Your task to perform on an android device: open app "Pandora - Music & Podcasts" (install if not already installed) and enter user name: "creator@yahoo.com" and password: "valuable" Image 0: 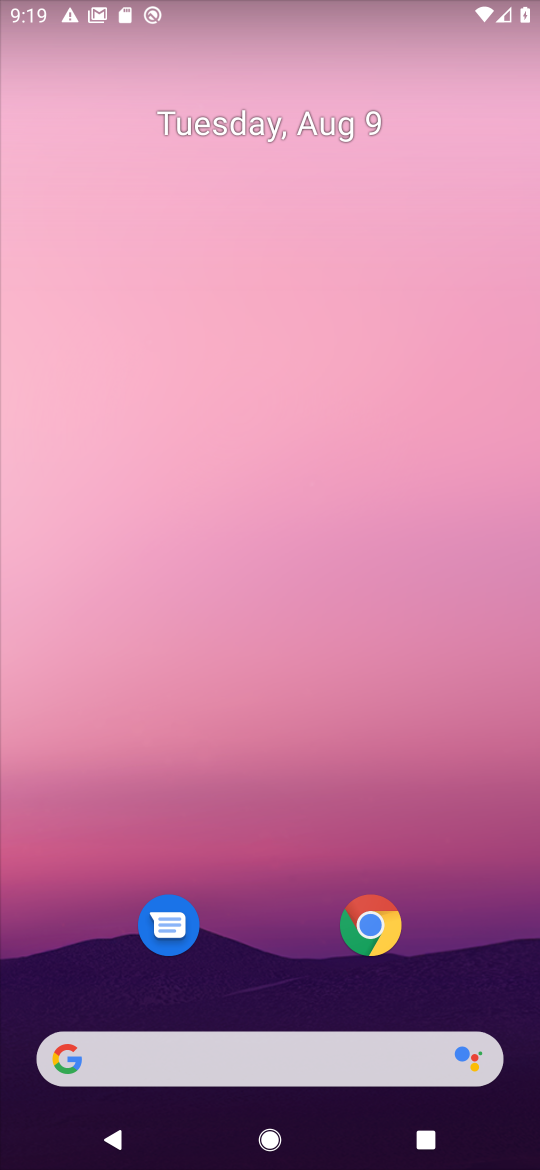
Step 0: click (264, 833)
Your task to perform on an android device: open app "Pandora - Music & Podcasts" (install if not already installed) and enter user name: "creator@yahoo.com" and password: "valuable" Image 1: 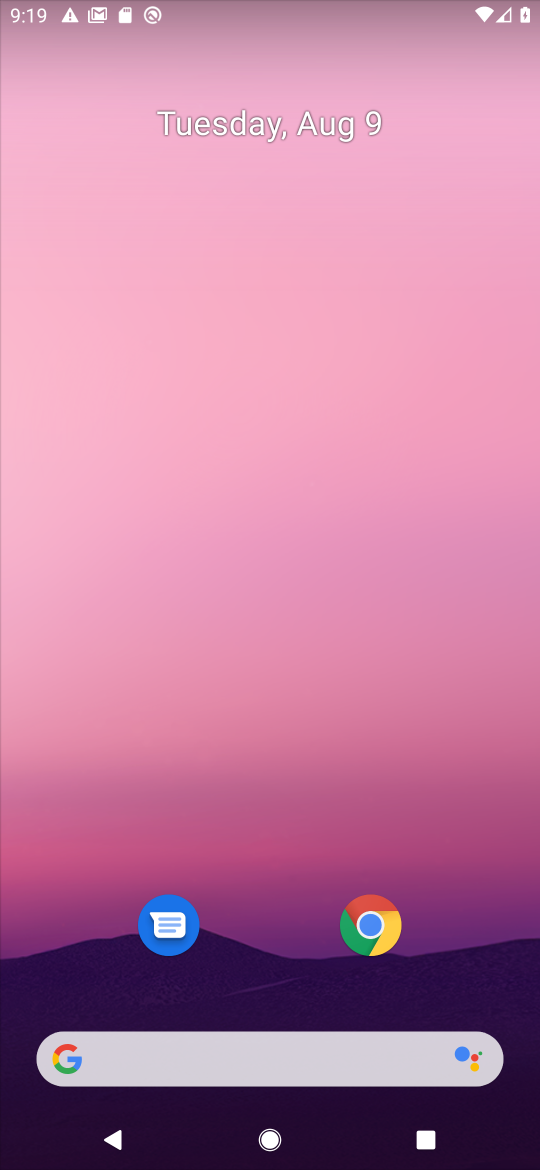
Step 1: drag from (263, 477) to (193, 22)
Your task to perform on an android device: open app "Pandora - Music & Podcasts" (install if not already installed) and enter user name: "creator@yahoo.com" and password: "valuable" Image 2: 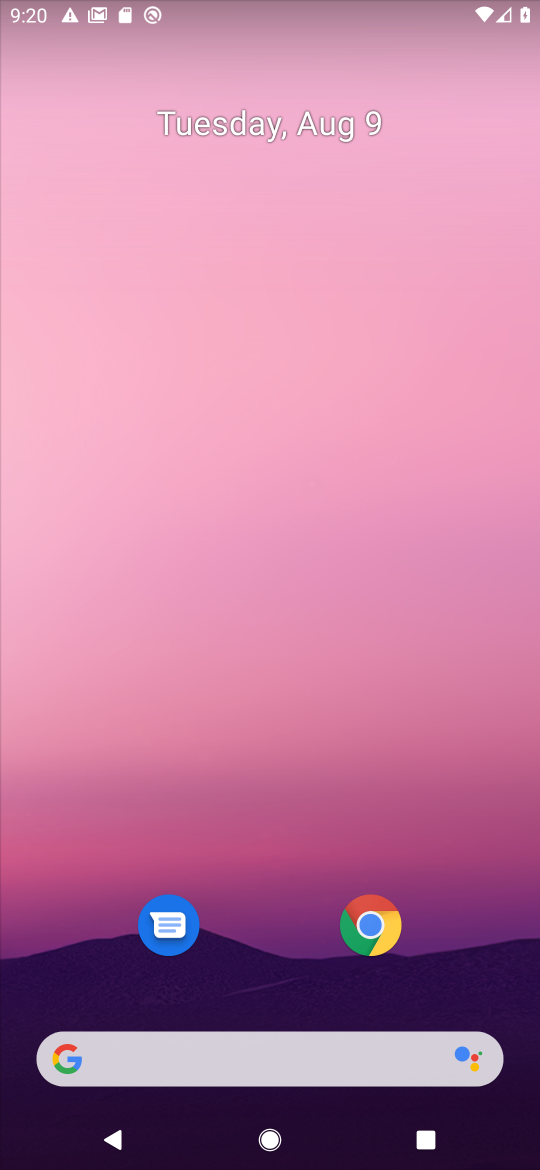
Step 2: drag from (254, 895) to (214, 19)
Your task to perform on an android device: open app "Pandora - Music & Podcasts" (install if not already installed) and enter user name: "creator@yahoo.com" and password: "valuable" Image 3: 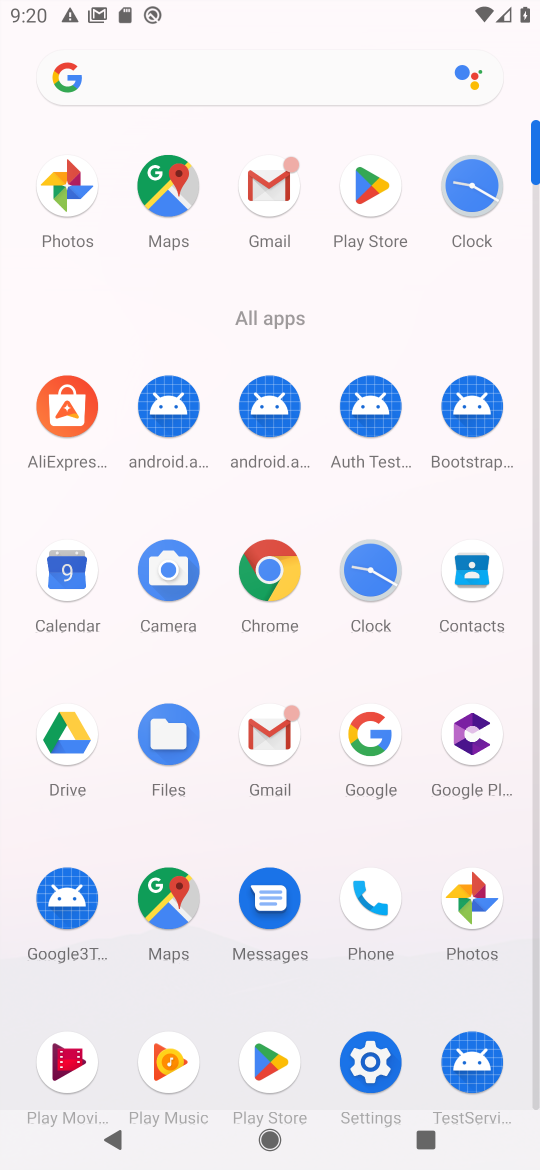
Step 3: click (369, 196)
Your task to perform on an android device: open app "Pandora - Music & Podcasts" (install if not already installed) and enter user name: "creator@yahoo.com" and password: "valuable" Image 4: 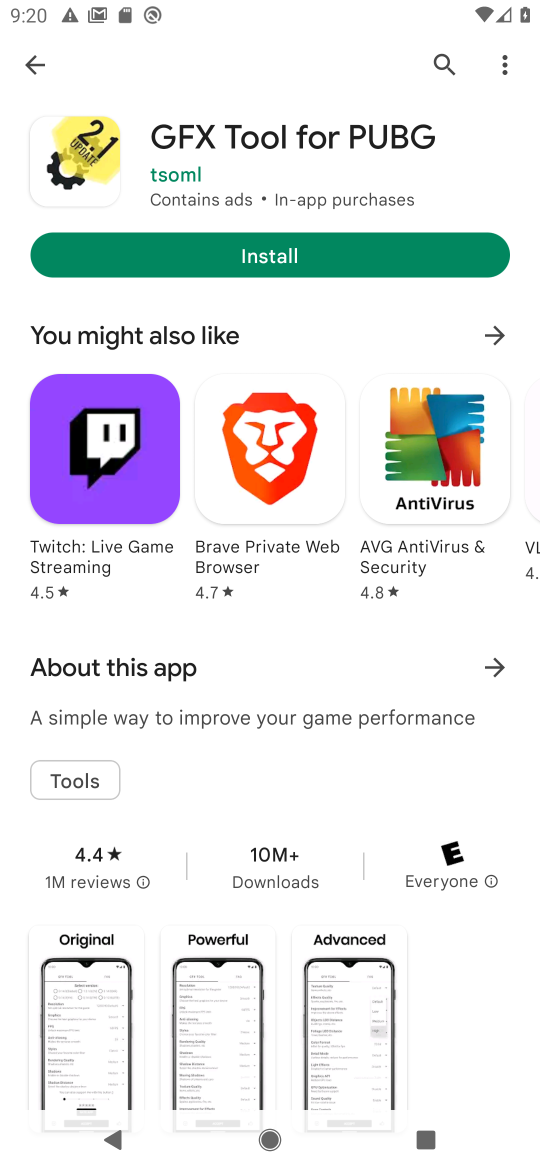
Step 4: click (26, 60)
Your task to perform on an android device: open app "Pandora - Music & Podcasts" (install if not already installed) and enter user name: "creator@yahoo.com" and password: "valuable" Image 5: 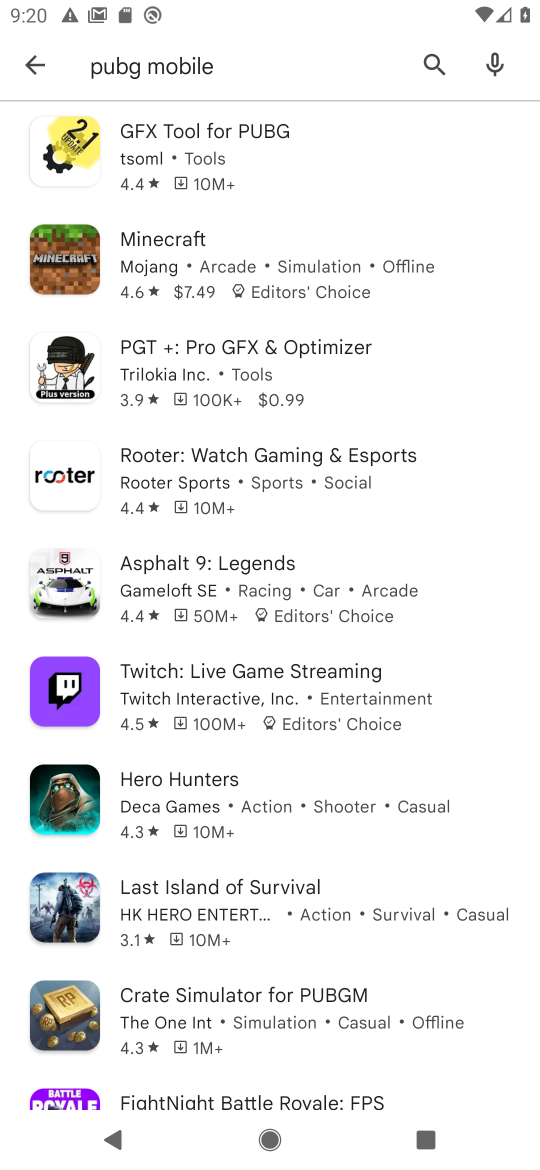
Step 5: click (42, 61)
Your task to perform on an android device: open app "Pandora - Music & Podcasts" (install if not already installed) and enter user name: "creator@yahoo.com" and password: "valuable" Image 6: 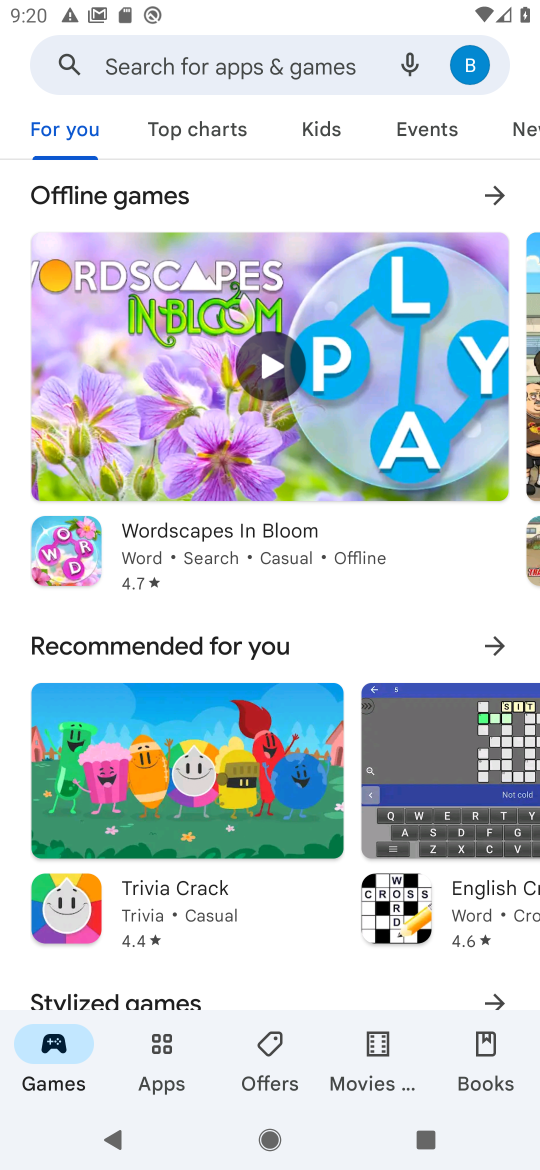
Step 6: click (212, 59)
Your task to perform on an android device: open app "Pandora - Music & Podcasts" (install if not already installed) and enter user name: "creator@yahoo.com" and password: "valuable" Image 7: 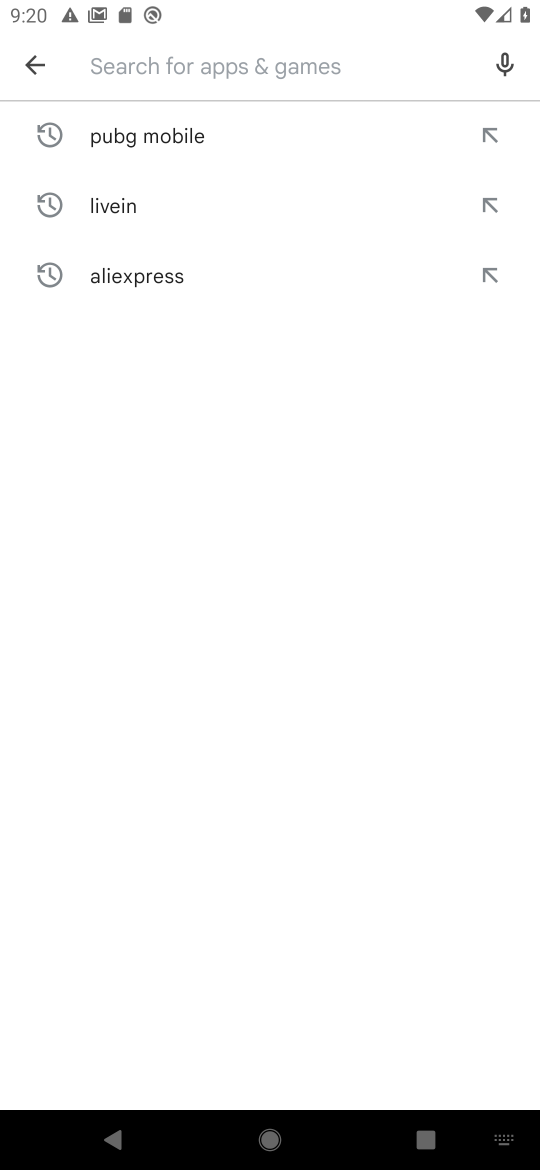
Step 7: type "Pandora"
Your task to perform on an android device: open app "Pandora - Music & Podcasts" (install if not already installed) and enter user name: "creator@yahoo.com" and password: "valuable" Image 8: 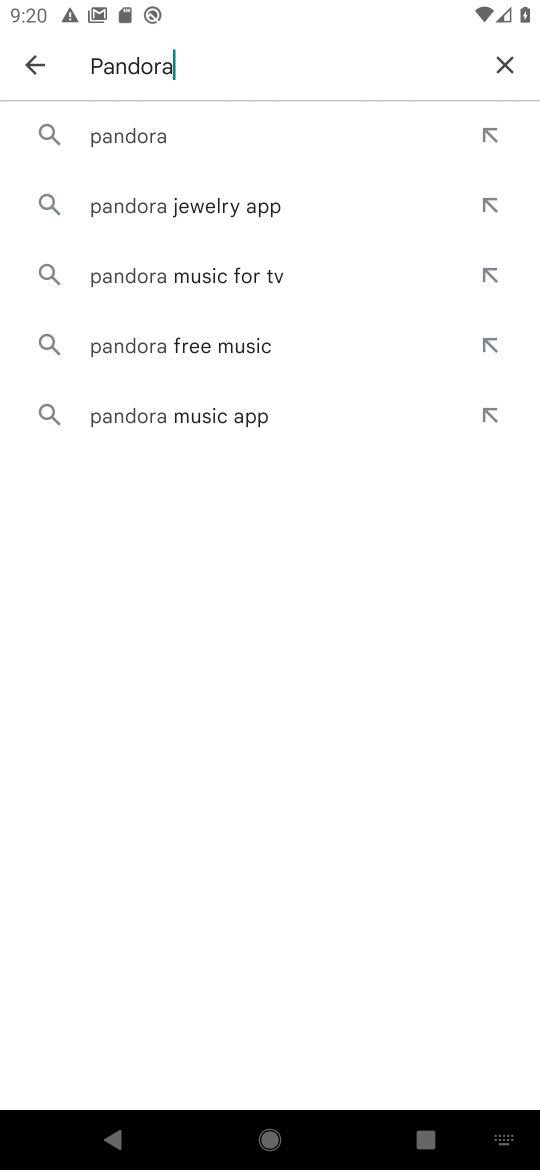
Step 8: click (144, 144)
Your task to perform on an android device: open app "Pandora - Music & Podcasts" (install if not already installed) and enter user name: "creator@yahoo.com" and password: "valuable" Image 9: 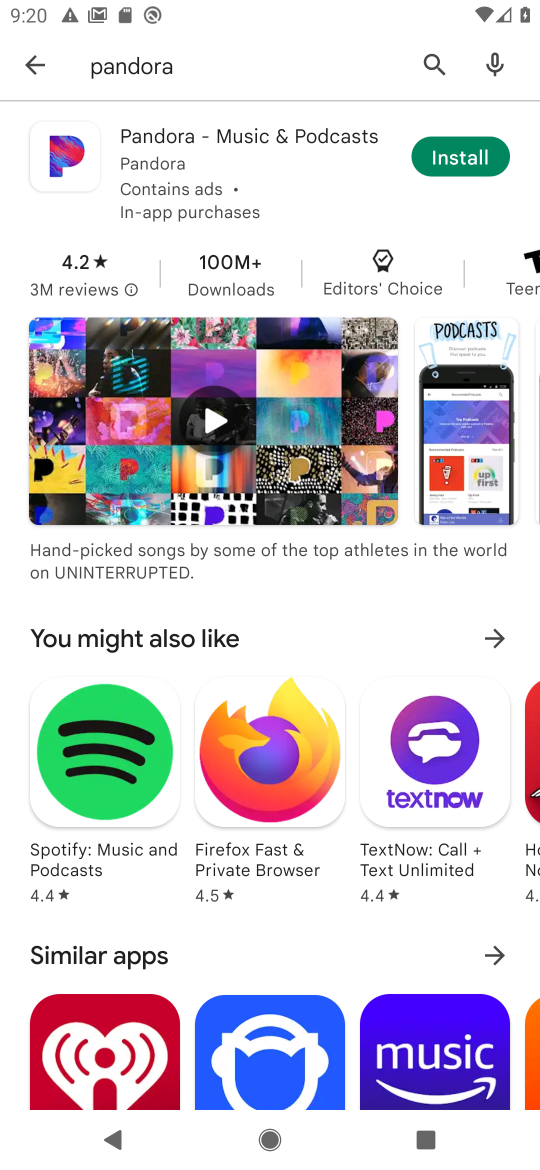
Step 9: click (452, 159)
Your task to perform on an android device: open app "Pandora - Music & Podcasts" (install if not already installed) and enter user name: "creator@yahoo.com" and password: "valuable" Image 10: 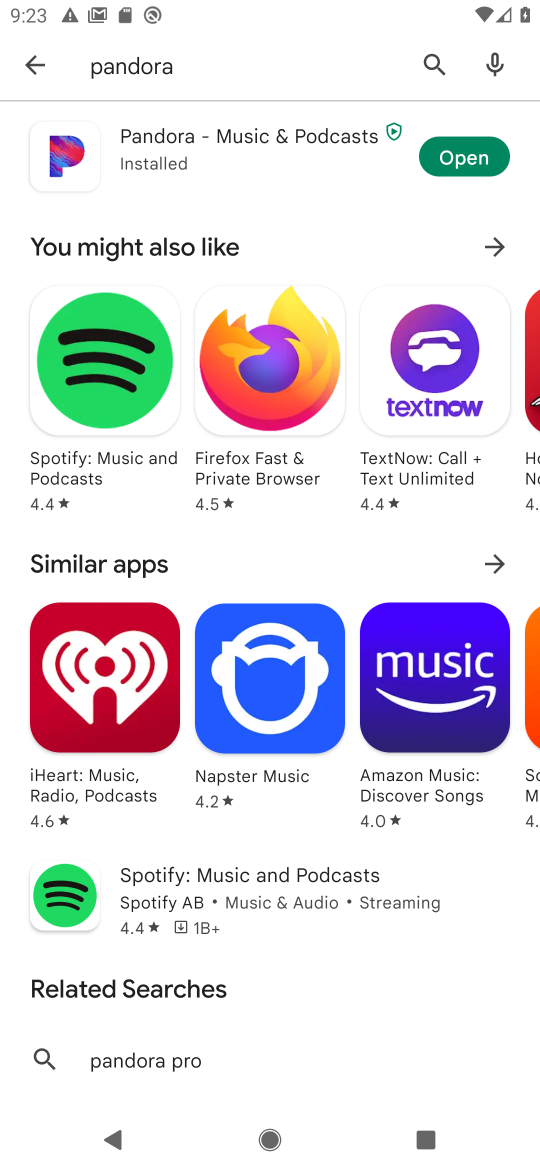
Step 10: click (475, 162)
Your task to perform on an android device: open app "Pandora - Music & Podcasts" (install if not already installed) and enter user name: "creator@yahoo.com" and password: "valuable" Image 11: 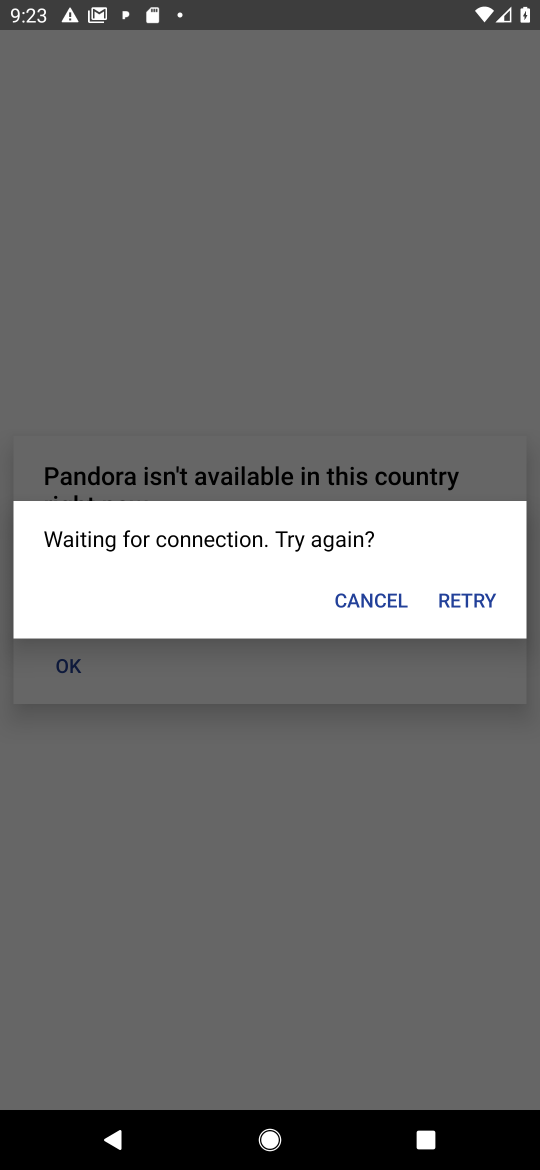
Step 11: click (458, 592)
Your task to perform on an android device: open app "Pandora - Music & Podcasts" (install if not already installed) and enter user name: "creator@yahoo.com" and password: "valuable" Image 12: 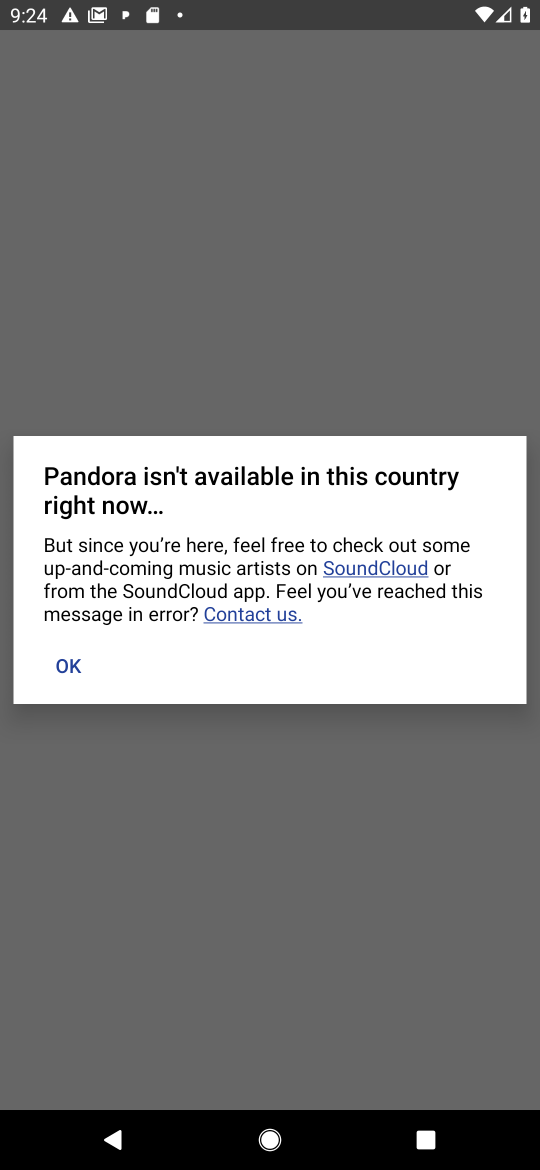
Step 12: click (73, 667)
Your task to perform on an android device: open app "Pandora - Music & Podcasts" (install if not already installed) and enter user name: "creator@yahoo.com" and password: "valuable" Image 13: 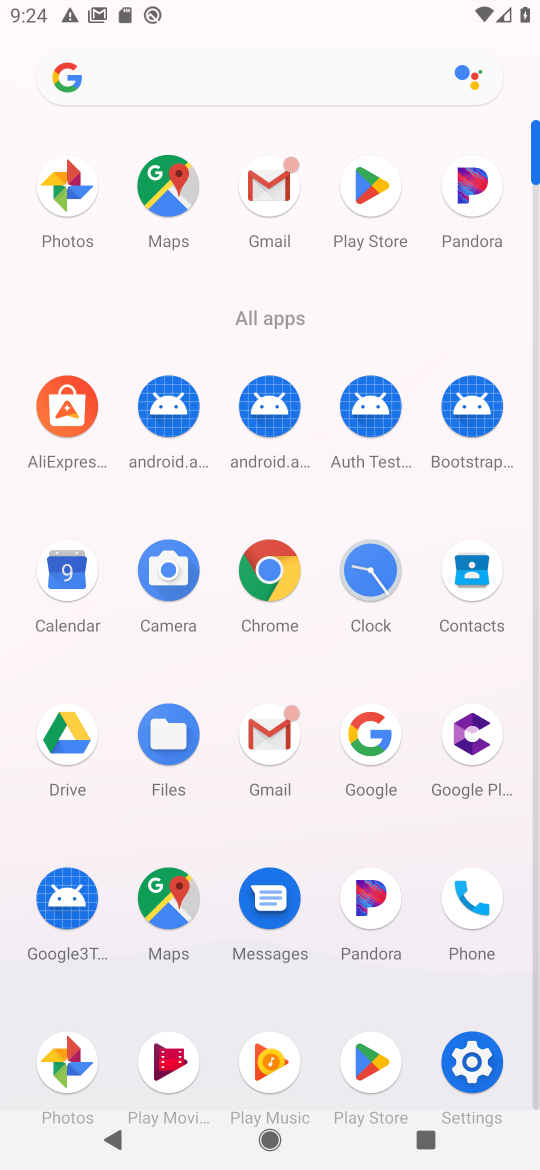
Step 13: task complete